Your task to perform on an android device: open app "ZOOM Cloud Meetings" (install if not already installed), go to login, and select forgot password Image 0: 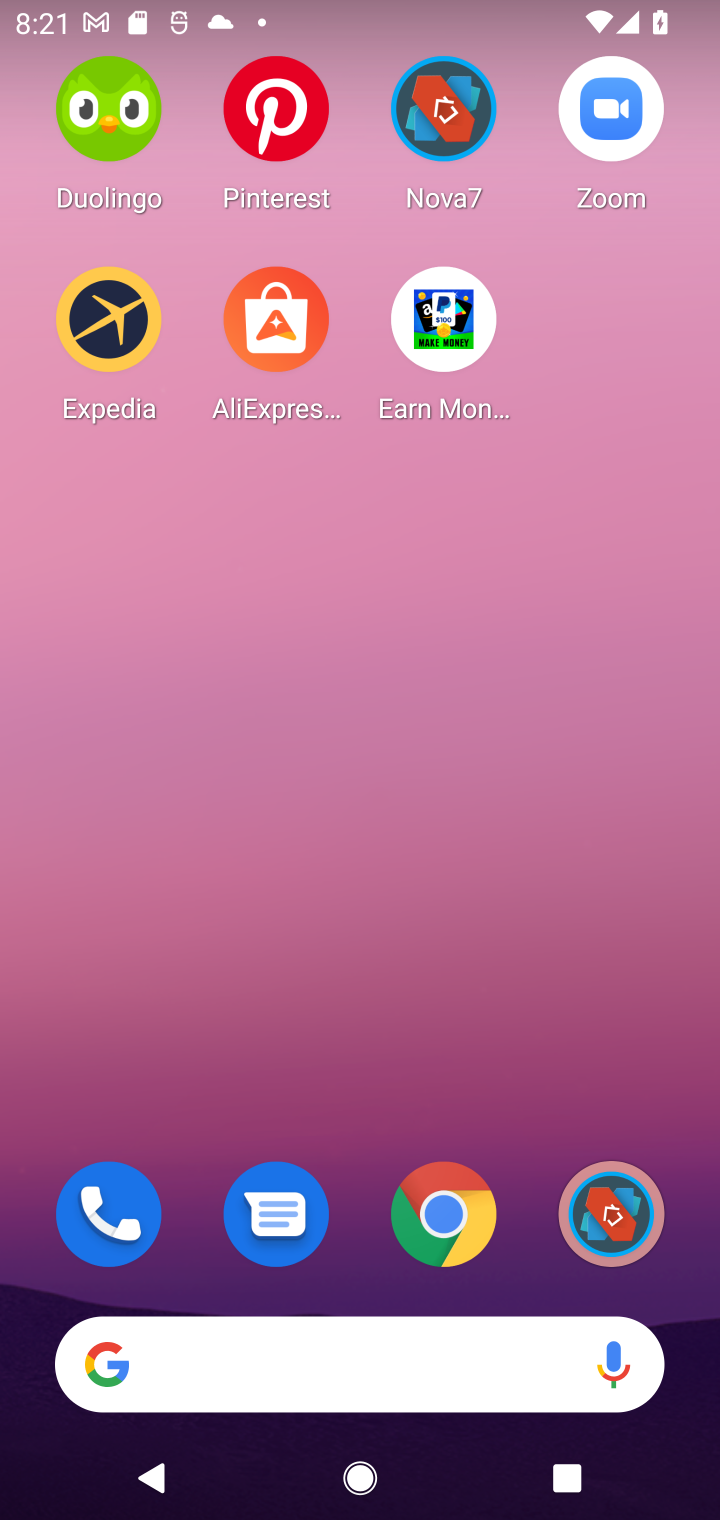
Step 0: click (607, 113)
Your task to perform on an android device: open app "ZOOM Cloud Meetings" (install if not already installed), go to login, and select forgot password Image 1: 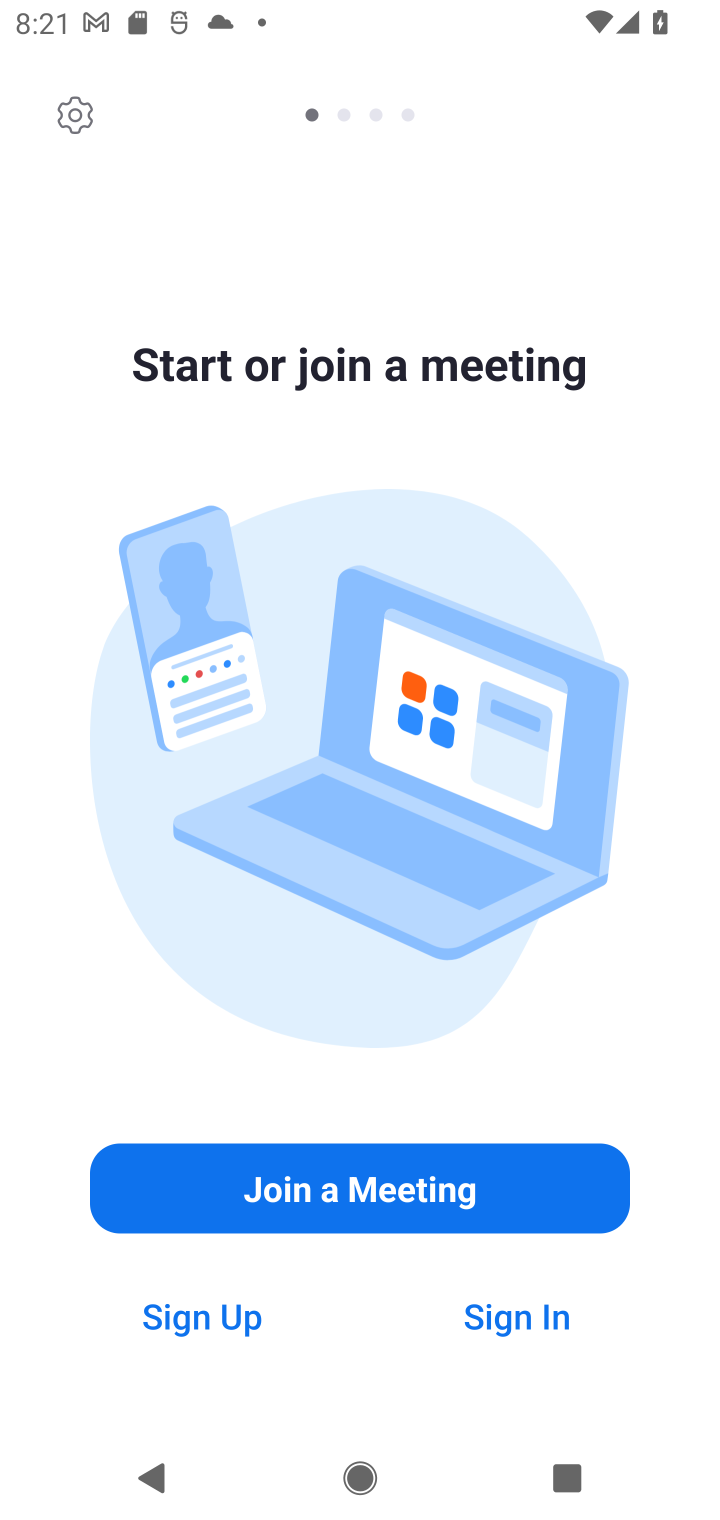
Step 1: click (519, 1317)
Your task to perform on an android device: open app "ZOOM Cloud Meetings" (install if not already installed), go to login, and select forgot password Image 2: 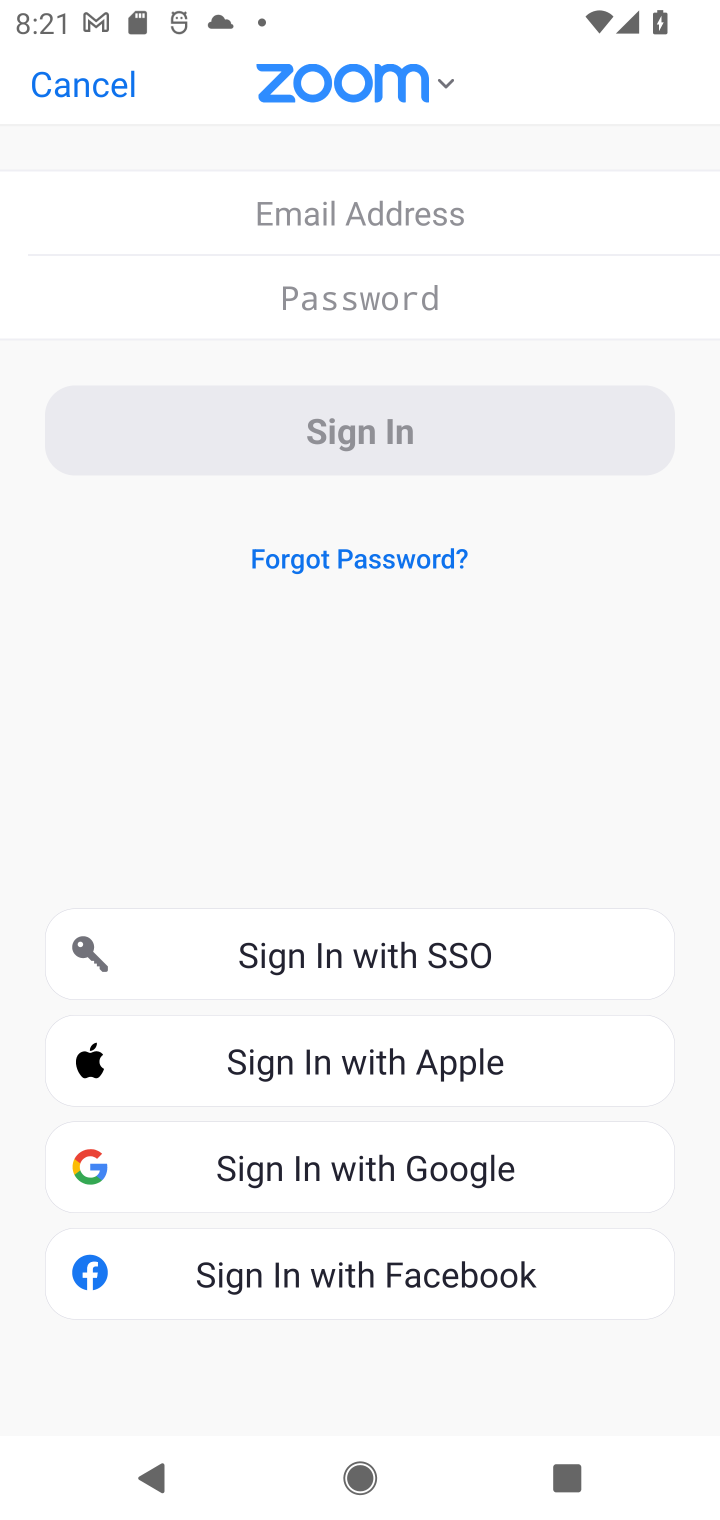
Step 2: click (319, 573)
Your task to perform on an android device: open app "ZOOM Cloud Meetings" (install if not already installed), go to login, and select forgot password Image 3: 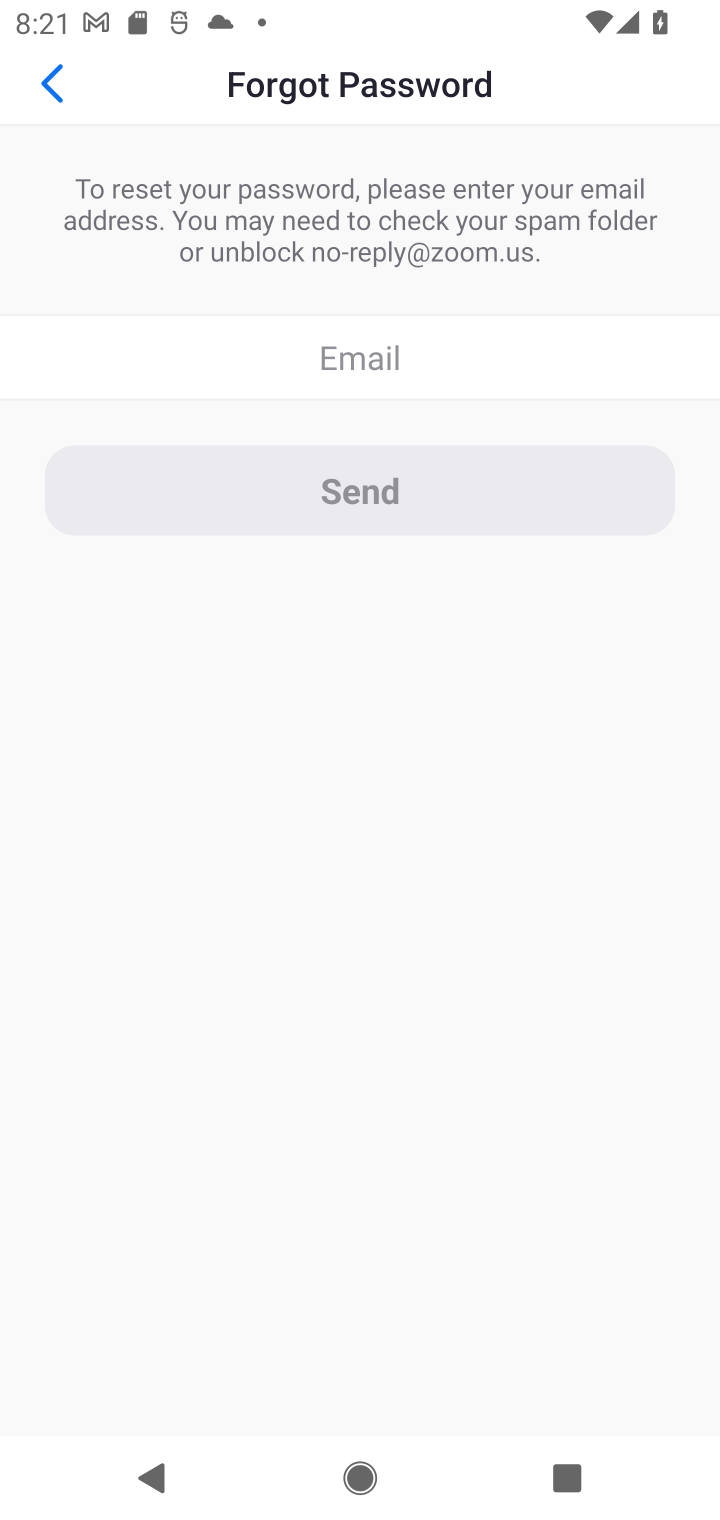
Step 3: task complete